Your task to perform on an android device: Open Google Chrome Image 0: 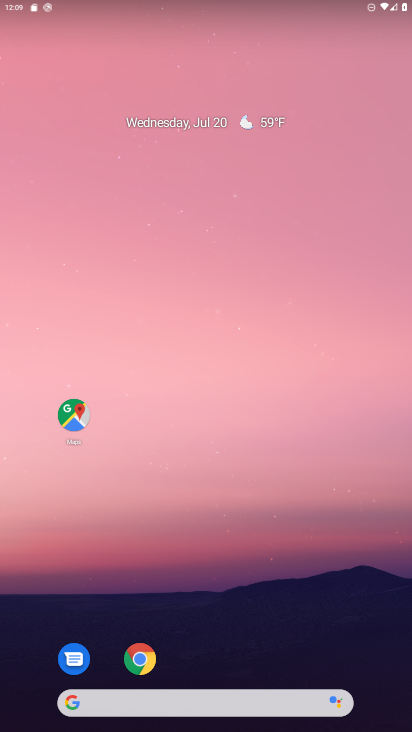
Step 0: drag from (243, 633) to (269, 139)
Your task to perform on an android device: Open Google Chrome Image 1: 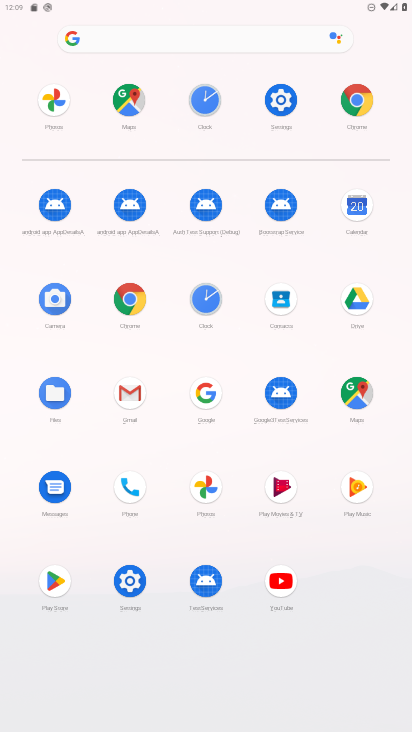
Step 1: click (126, 300)
Your task to perform on an android device: Open Google Chrome Image 2: 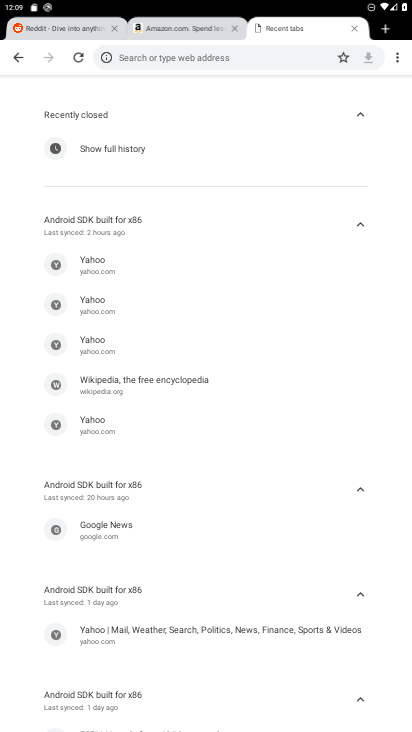
Step 2: task complete